Your task to perform on an android device: open sync settings in chrome Image 0: 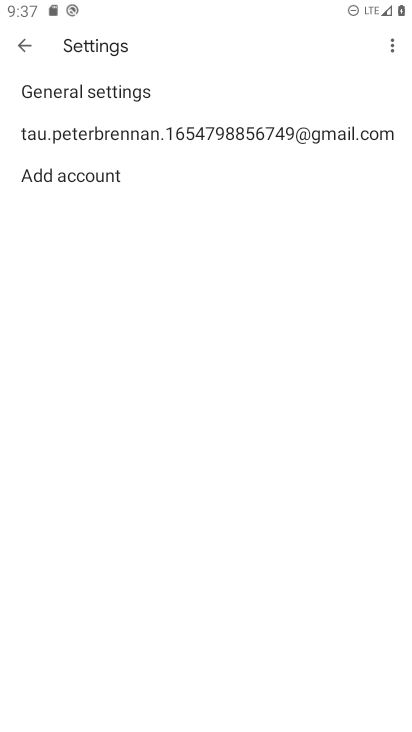
Step 0: press home button
Your task to perform on an android device: open sync settings in chrome Image 1: 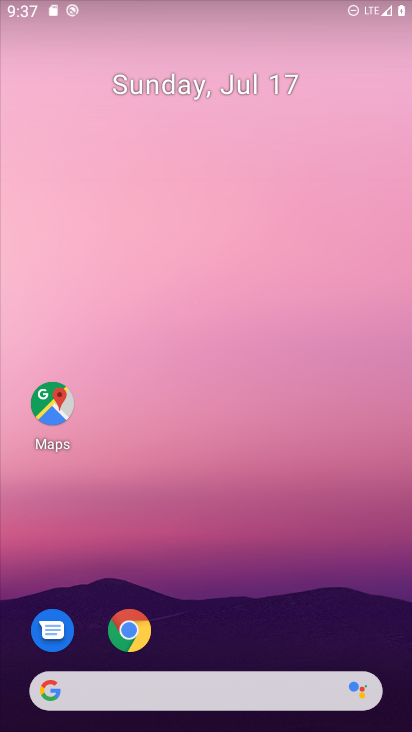
Step 1: drag from (231, 651) to (223, 255)
Your task to perform on an android device: open sync settings in chrome Image 2: 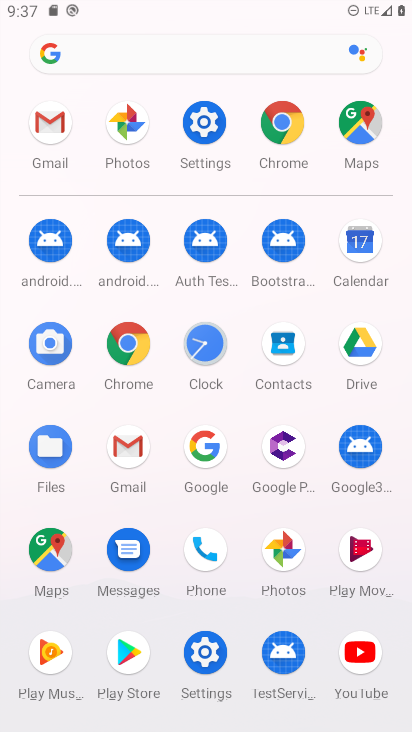
Step 2: click (275, 119)
Your task to perform on an android device: open sync settings in chrome Image 3: 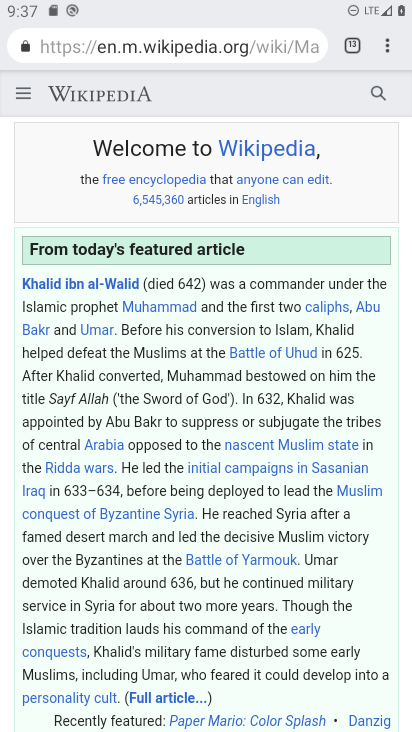
Step 3: click (388, 38)
Your task to perform on an android device: open sync settings in chrome Image 4: 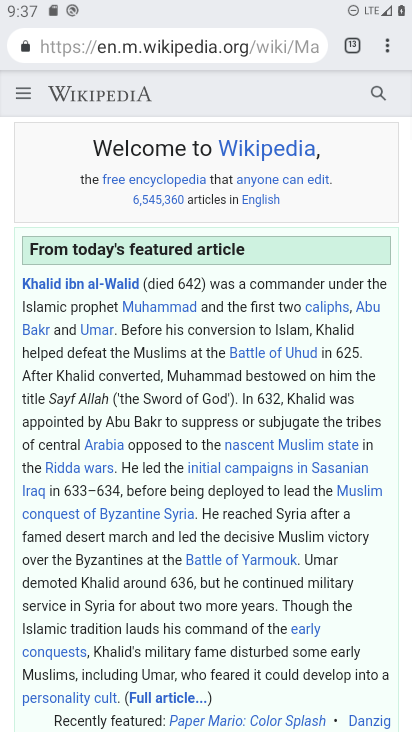
Step 4: click (384, 44)
Your task to perform on an android device: open sync settings in chrome Image 5: 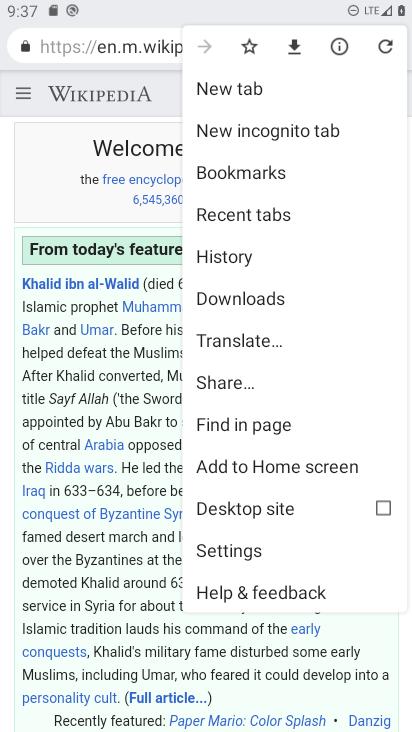
Step 5: click (223, 95)
Your task to perform on an android device: open sync settings in chrome Image 6: 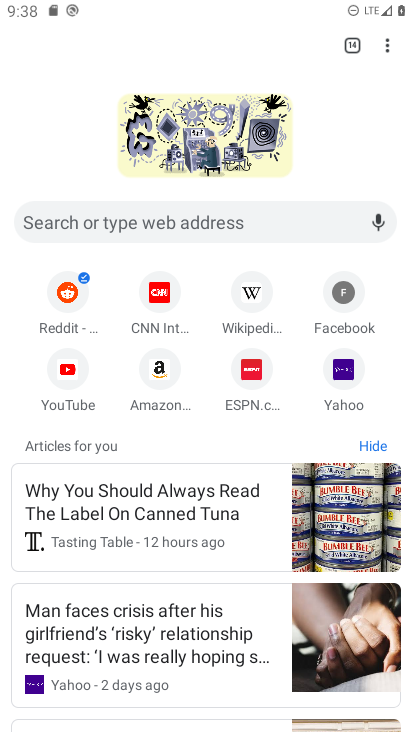
Step 6: click (400, 51)
Your task to perform on an android device: open sync settings in chrome Image 7: 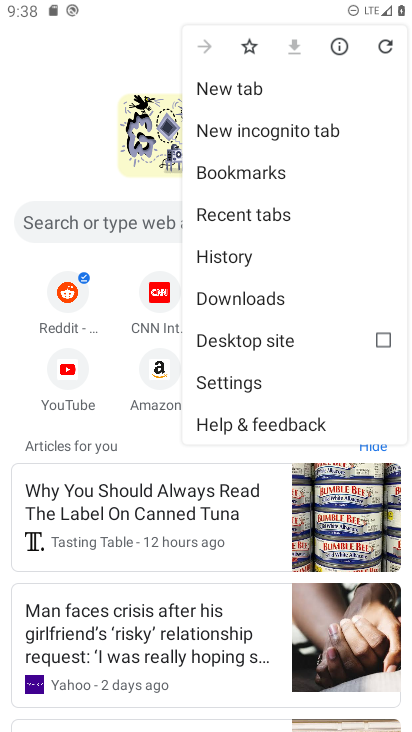
Step 7: click (246, 370)
Your task to perform on an android device: open sync settings in chrome Image 8: 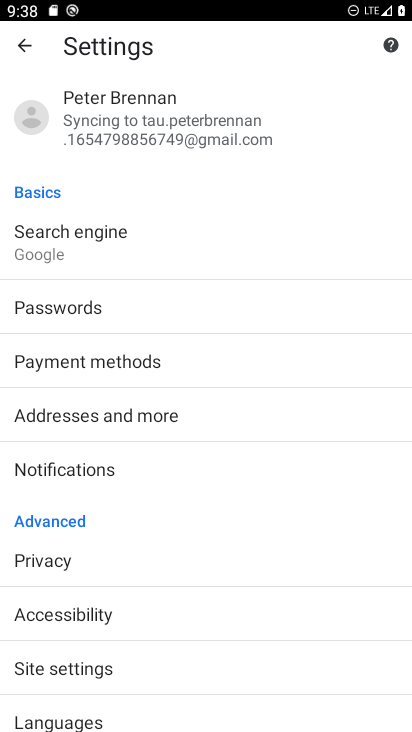
Step 8: click (136, 101)
Your task to perform on an android device: open sync settings in chrome Image 9: 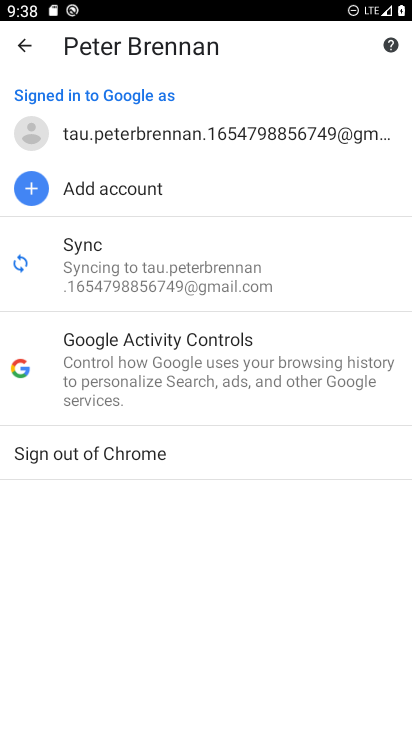
Step 9: task complete